Your task to perform on an android device: Clear the cart on bestbuy.com. Search for razer blade on bestbuy.com, select the first entry, and add it to the cart. Image 0: 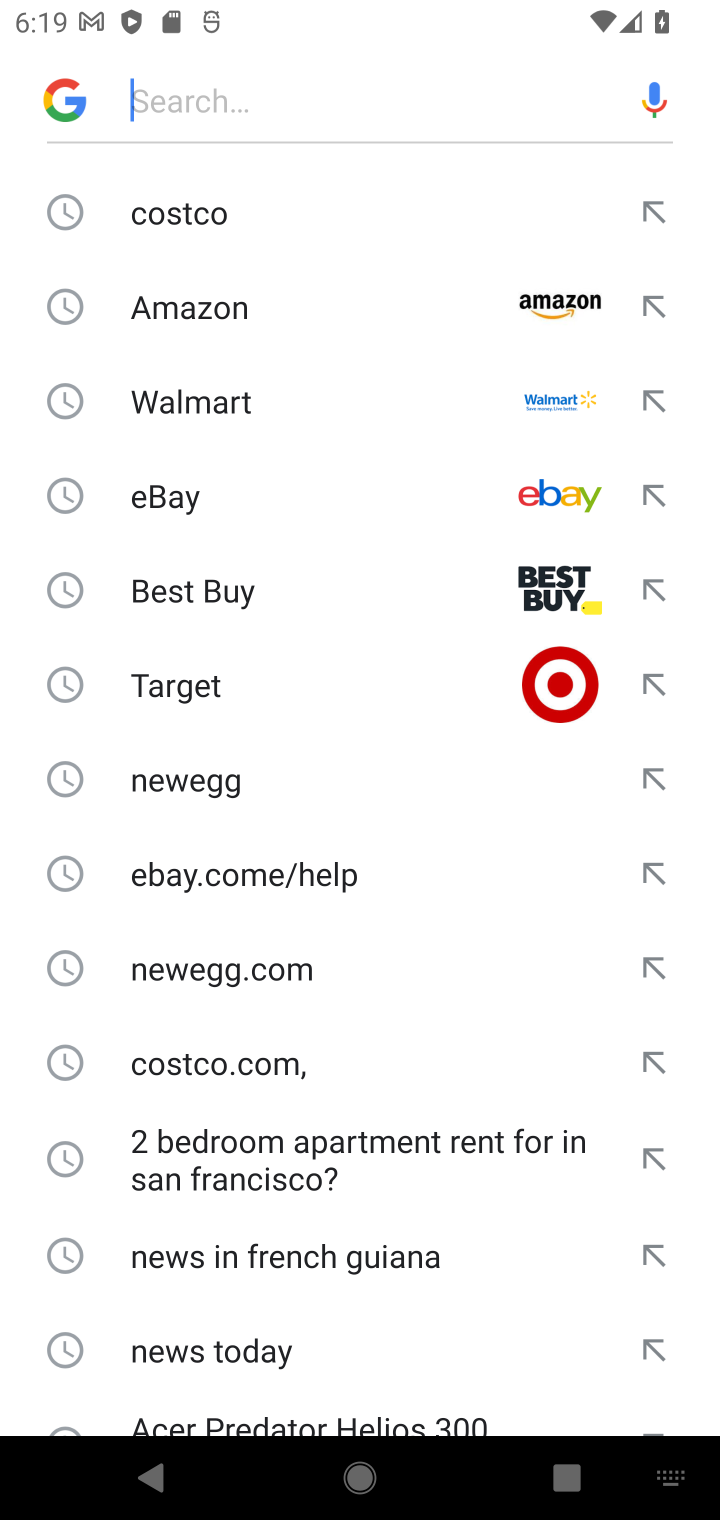
Step 0: click (186, 573)
Your task to perform on an android device: Clear the cart on bestbuy.com. Search for razer blade on bestbuy.com, select the first entry, and add it to the cart. Image 1: 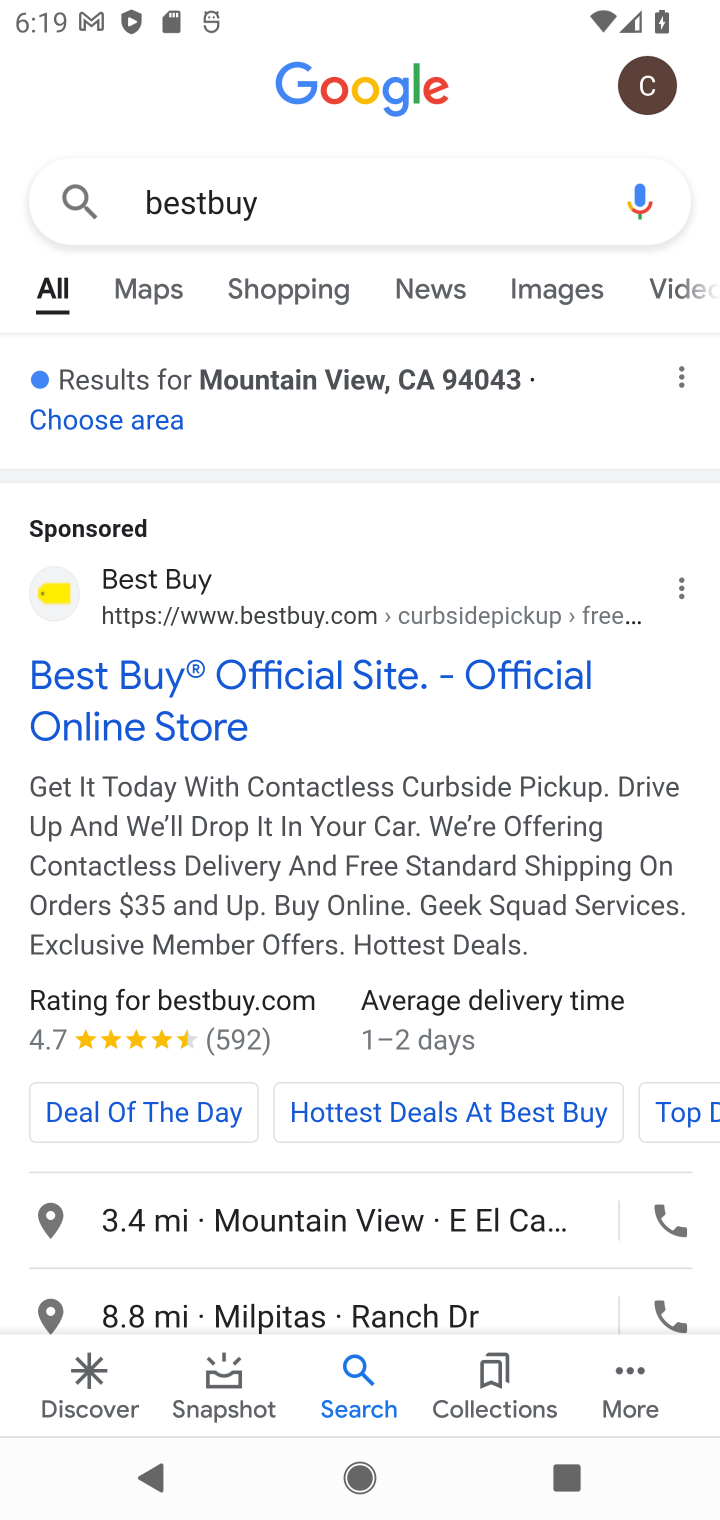
Step 1: click (117, 675)
Your task to perform on an android device: Clear the cart on bestbuy.com. Search for razer blade on bestbuy.com, select the first entry, and add it to the cart. Image 2: 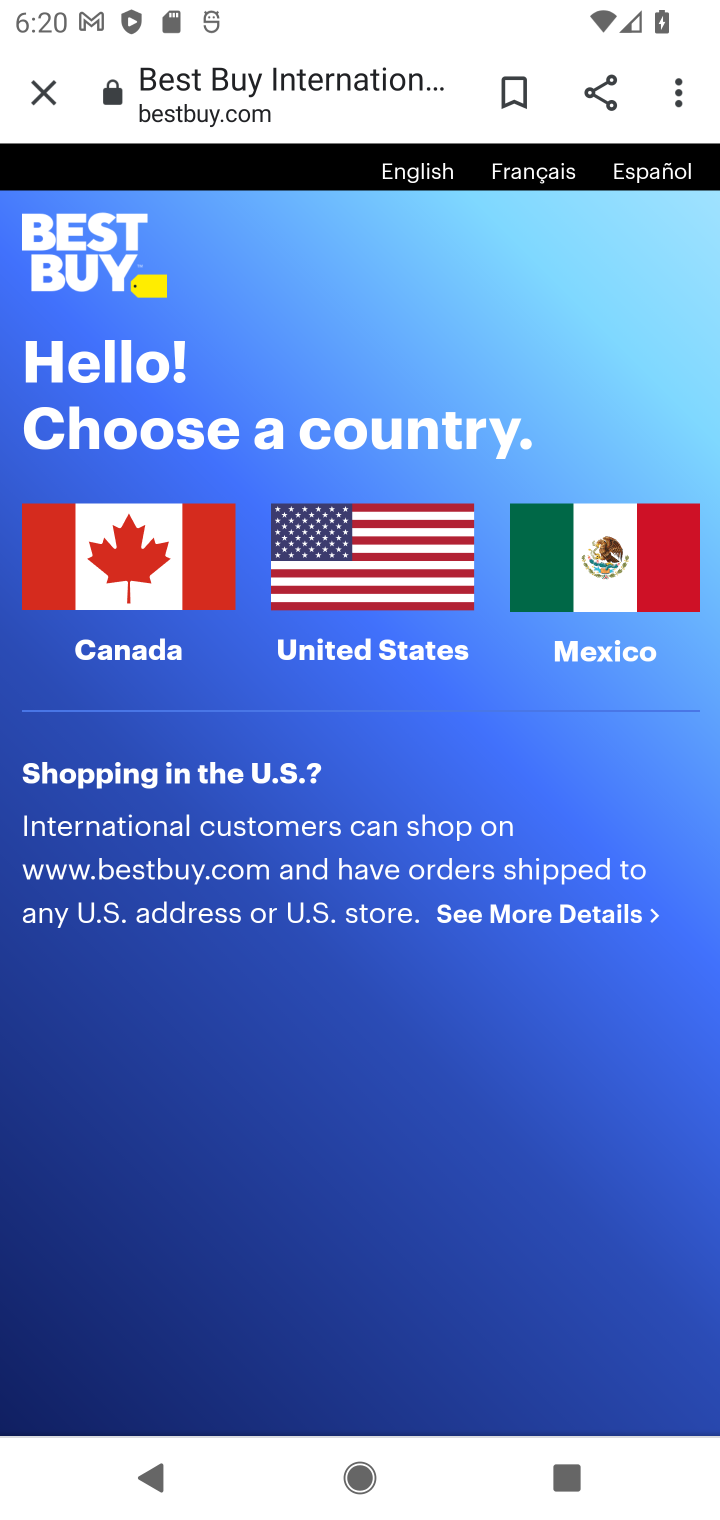
Step 2: click (108, 600)
Your task to perform on an android device: Clear the cart on bestbuy.com. Search for razer blade on bestbuy.com, select the first entry, and add it to the cart. Image 3: 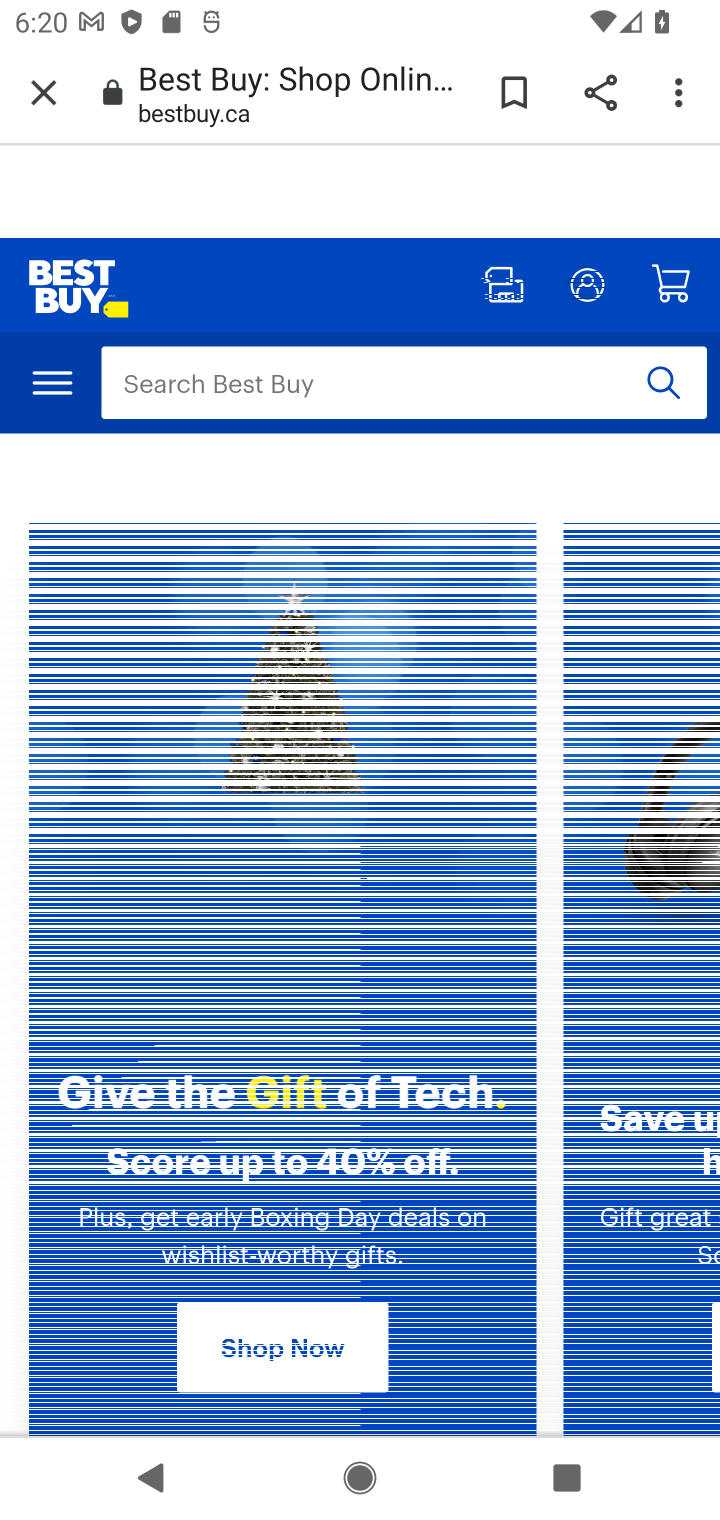
Step 3: click (289, 381)
Your task to perform on an android device: Clear the cart on bestbuy.com. Search for razer blade on bestbuy.com, select the first entry, and add it to the cart. Image 4: 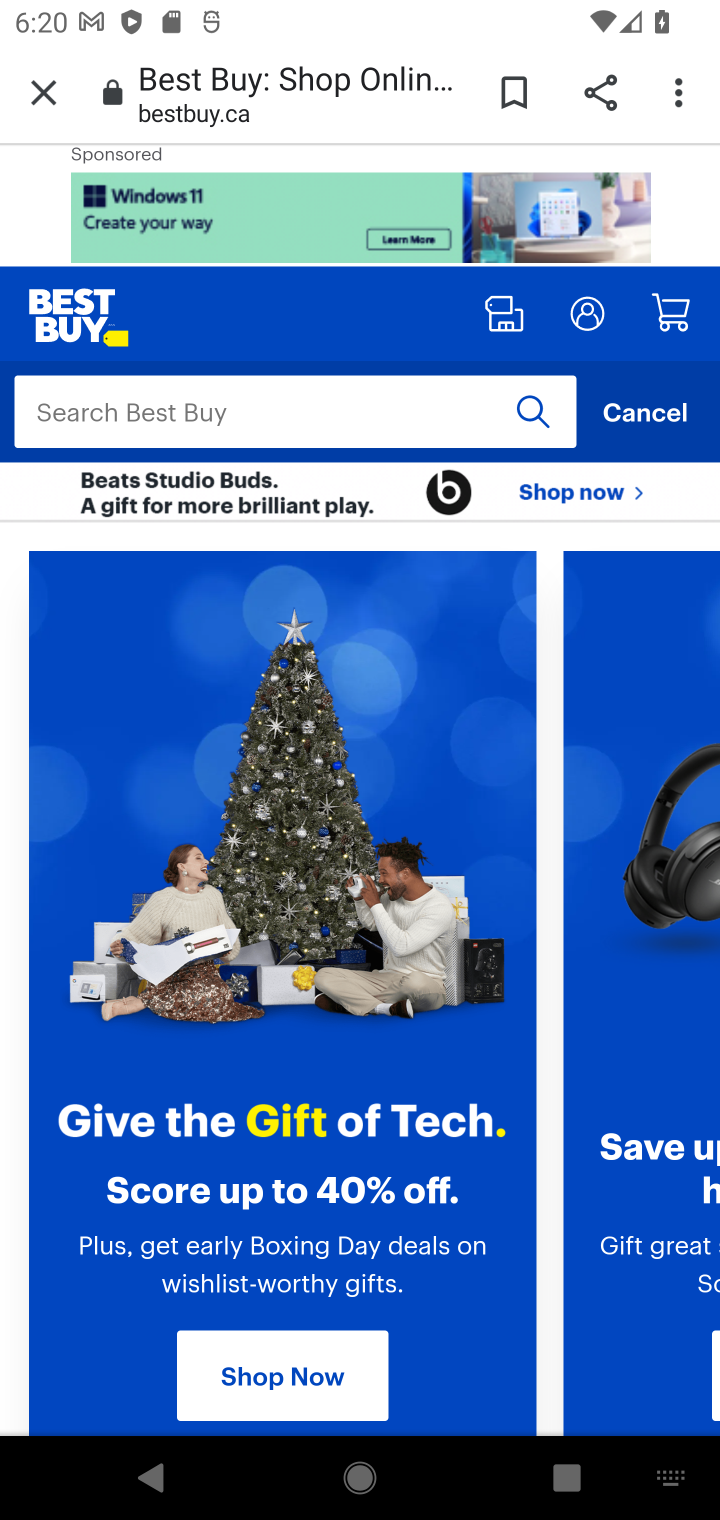
Step 4: type "razer blade"
Your task to perform on an android device: Clear the cart on bestbuy.com. Search for razer blade on bestbuy.com, select the first entry, and add it to the cart. Image 5: 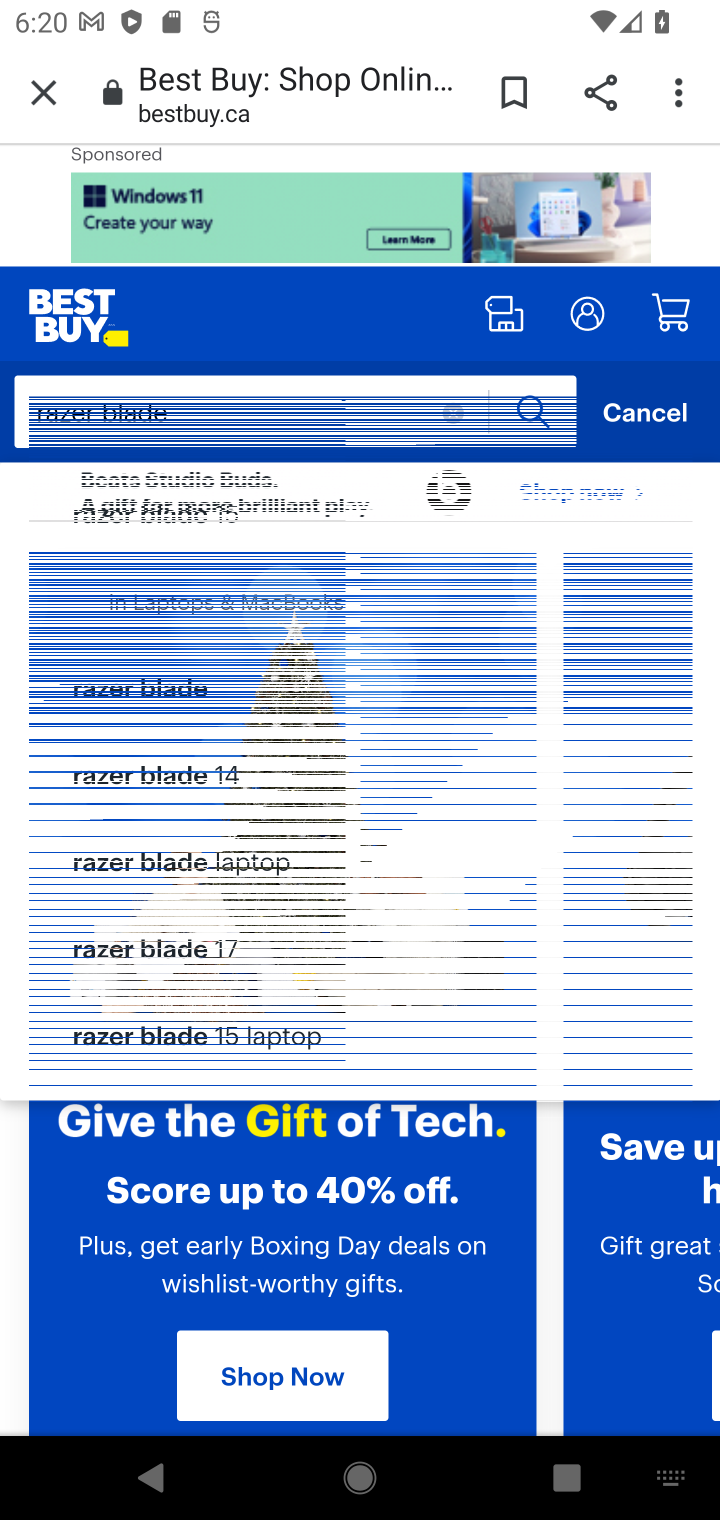
Step 5: click (207, 674)
Your task to perform on an android device: Clear the cart on bestbuy.com. Search for razer blade on bestbuy.com, select the first entry, and add it to the cart. Image 6: 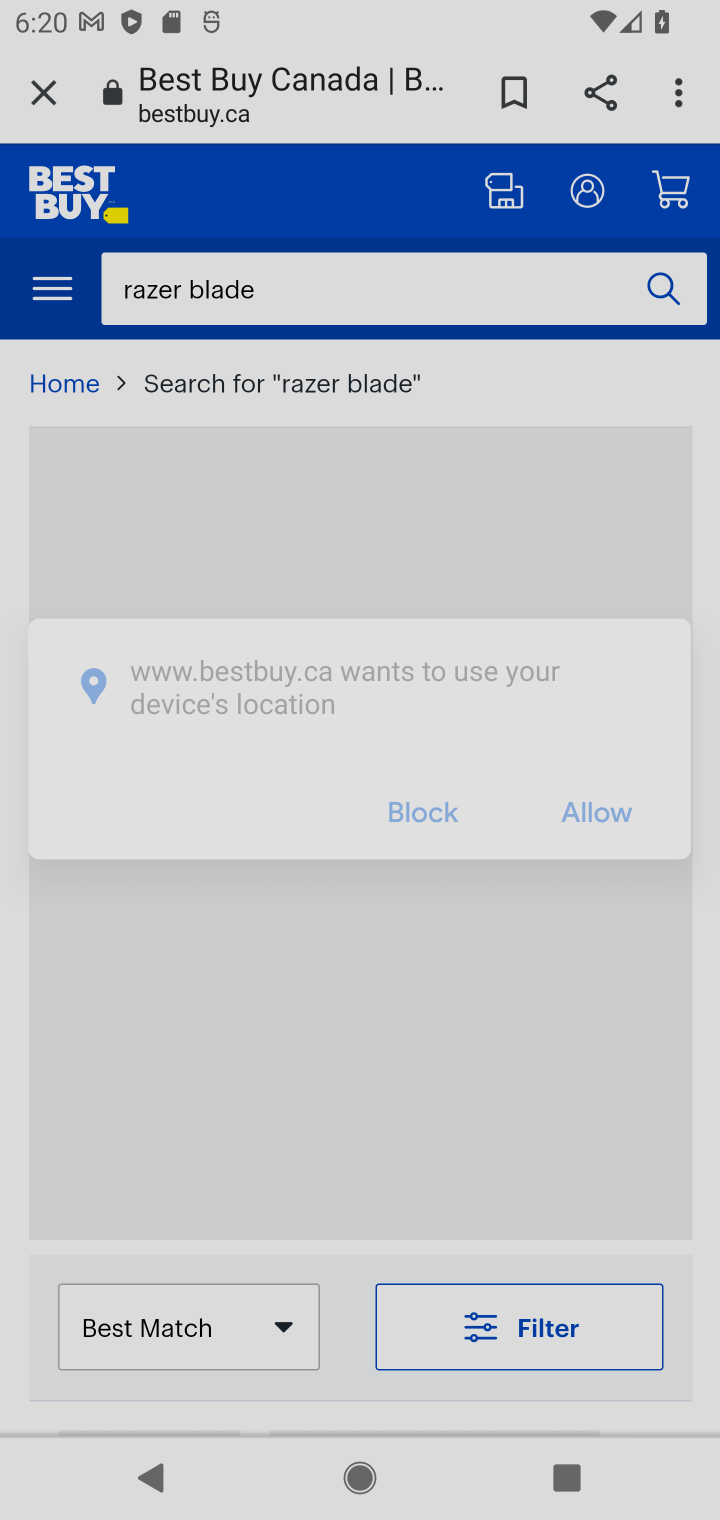
Step 6: click (165, 709)
Your task to perform on an android device: Clear the cart on bestbuy.com. Search for razer blade on bestbuy.com, select the first entry, and add it to the cart. Image 7: 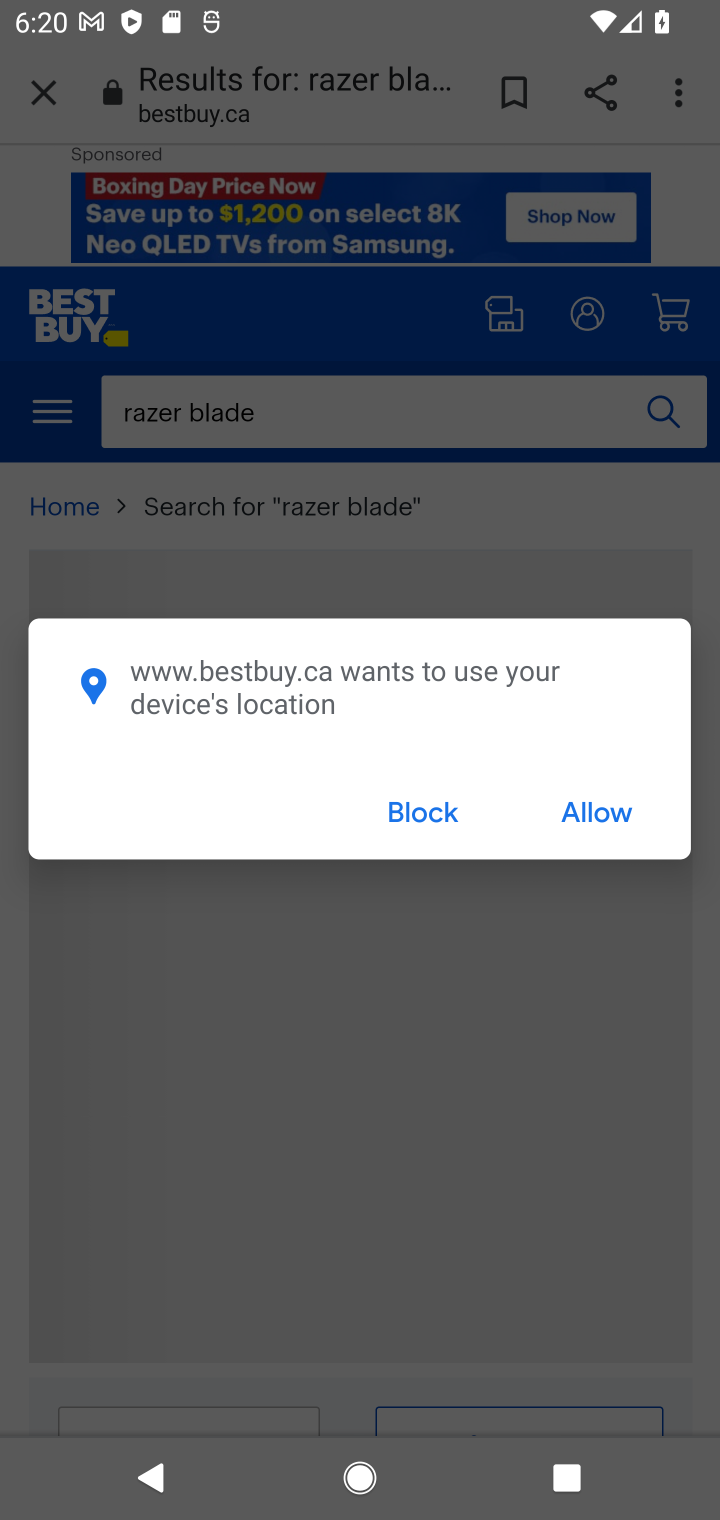
Step 7: click (563, 835)
Your task to perform on an android device: Clear the cart on bestbuy.com. Search for razer blade on bestbuy.com, select the first entry, and add it to the cart. Image 8: 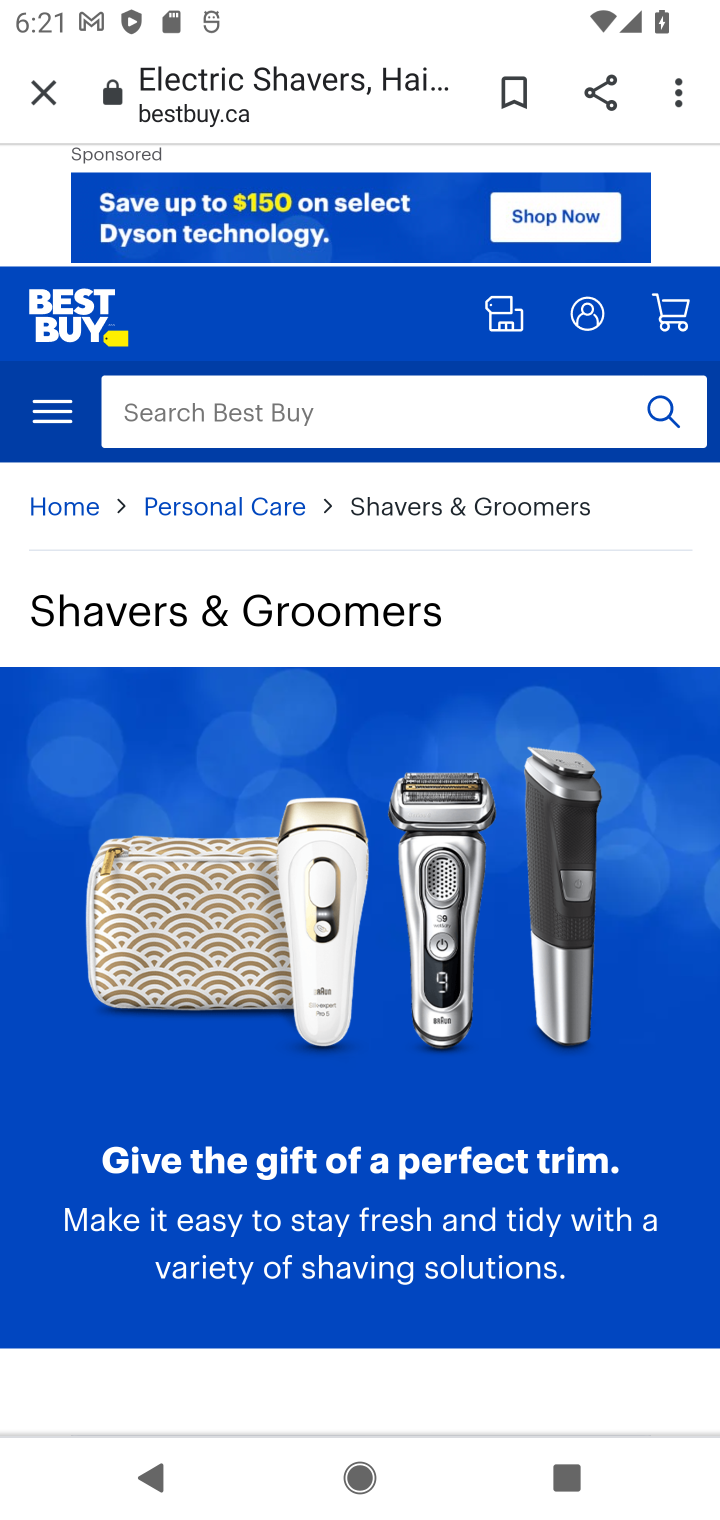
Step 8: task complete